Your task to perform on an android device: Add dell xps to the cart on ebay.com Image 0: 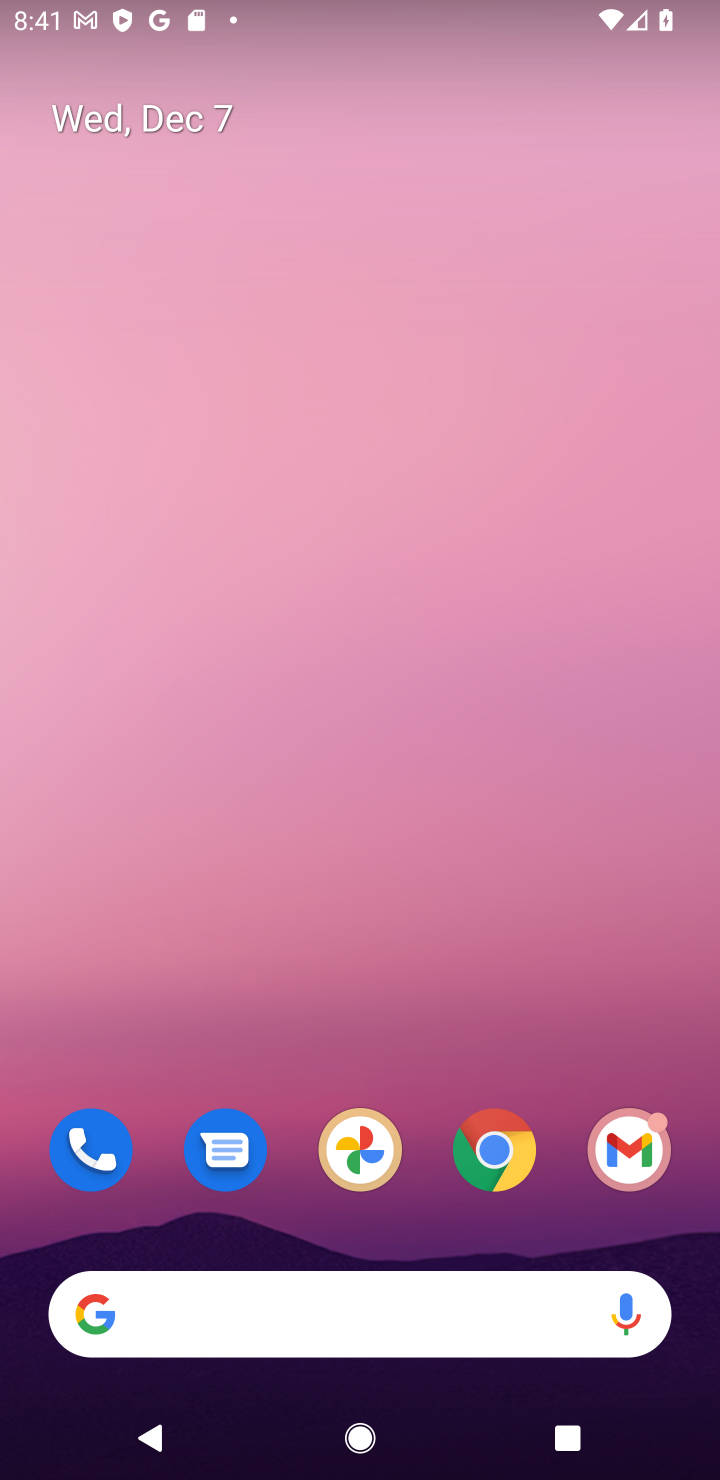
Step 0: click (502, 1149)
Your task to perform on an android device: Add dell xps to the cart on ebay.com Image 1: 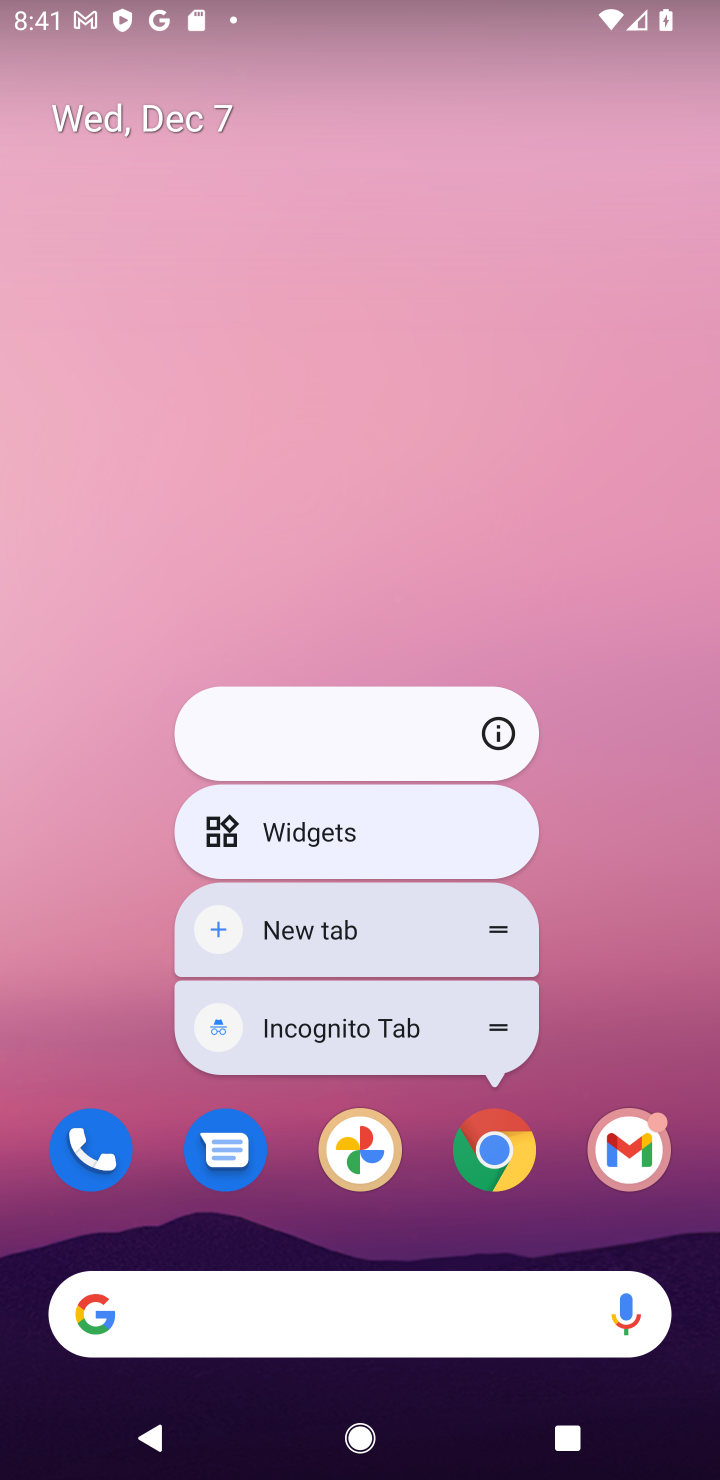
Step 1: click (519, 1165)
Your task to perform on an android device: Add dell xps to the cart on ebay.com Image 2: 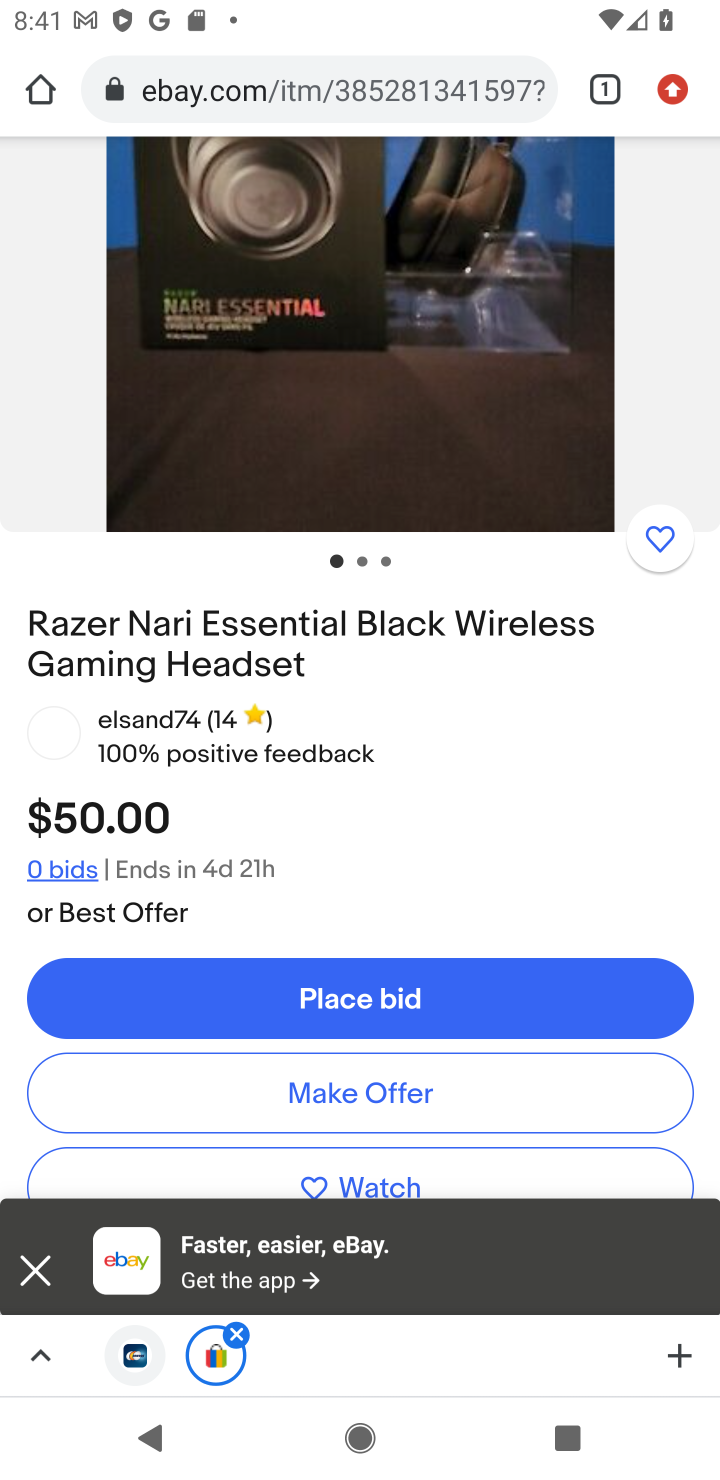
Step 2: click (206, 94)
Your task to perform on an android device: Add dell xps to the cart on ebay.com Image 3: 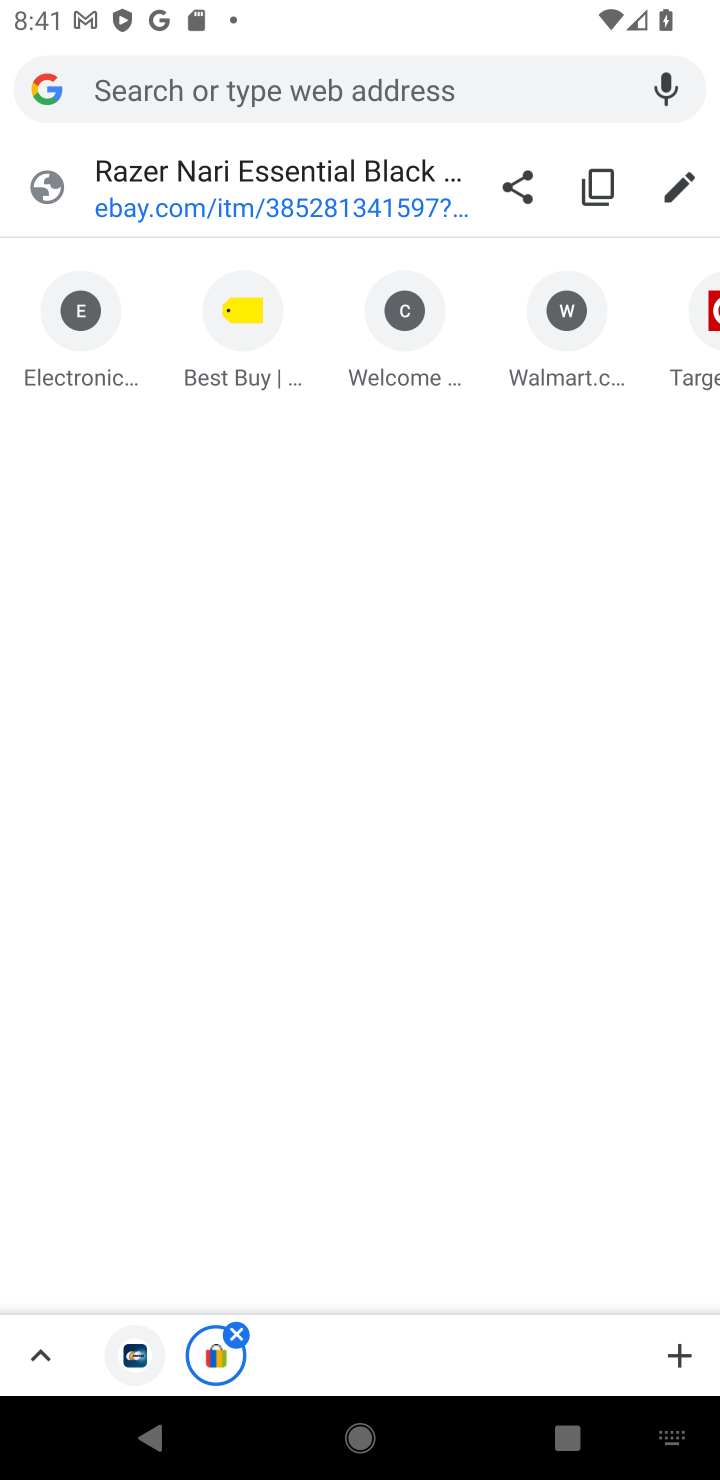
Step 3: type "ebay.com"
Your task to perform on an android device: Add dell xps to the cart on ebay.com Image 4: 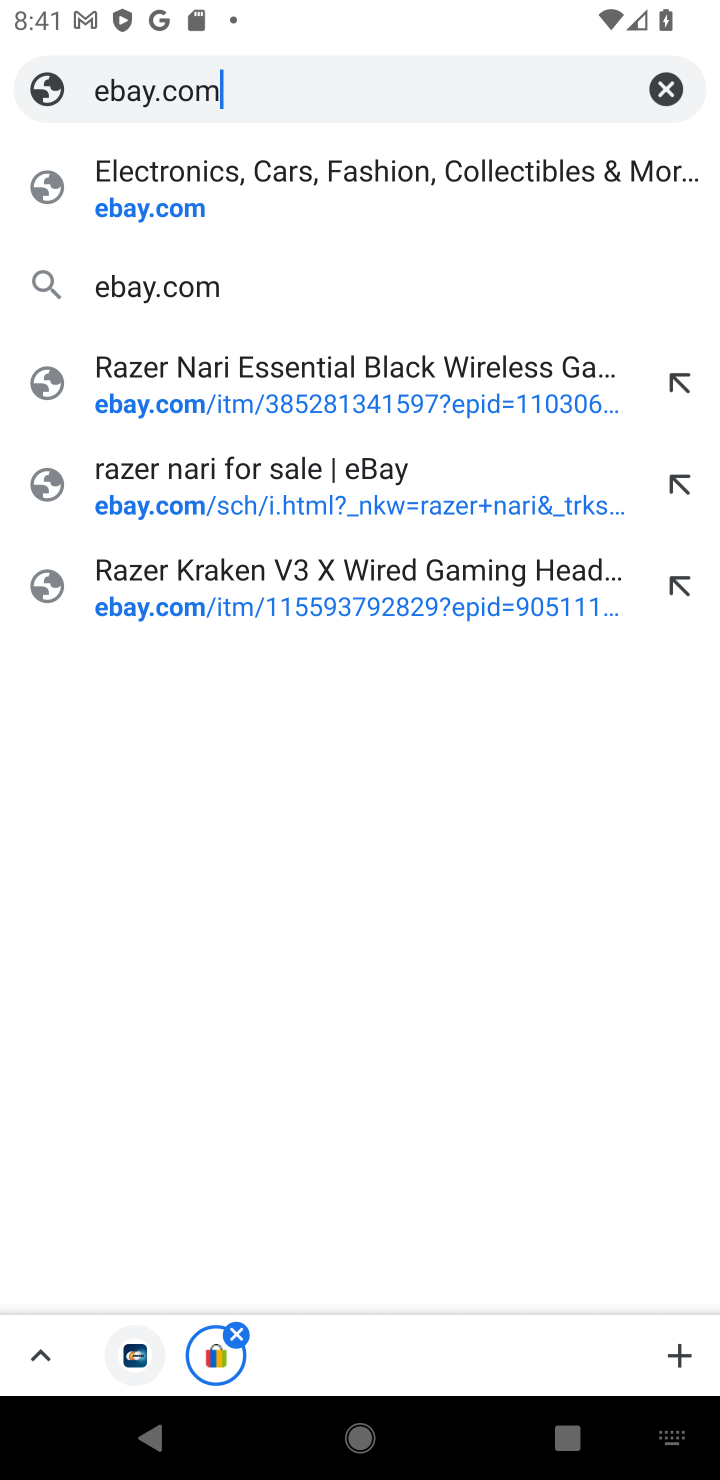
Step 4: press enter
Your task to perform on an android device: Add dell xps to the cart on ebay.com Image 5: 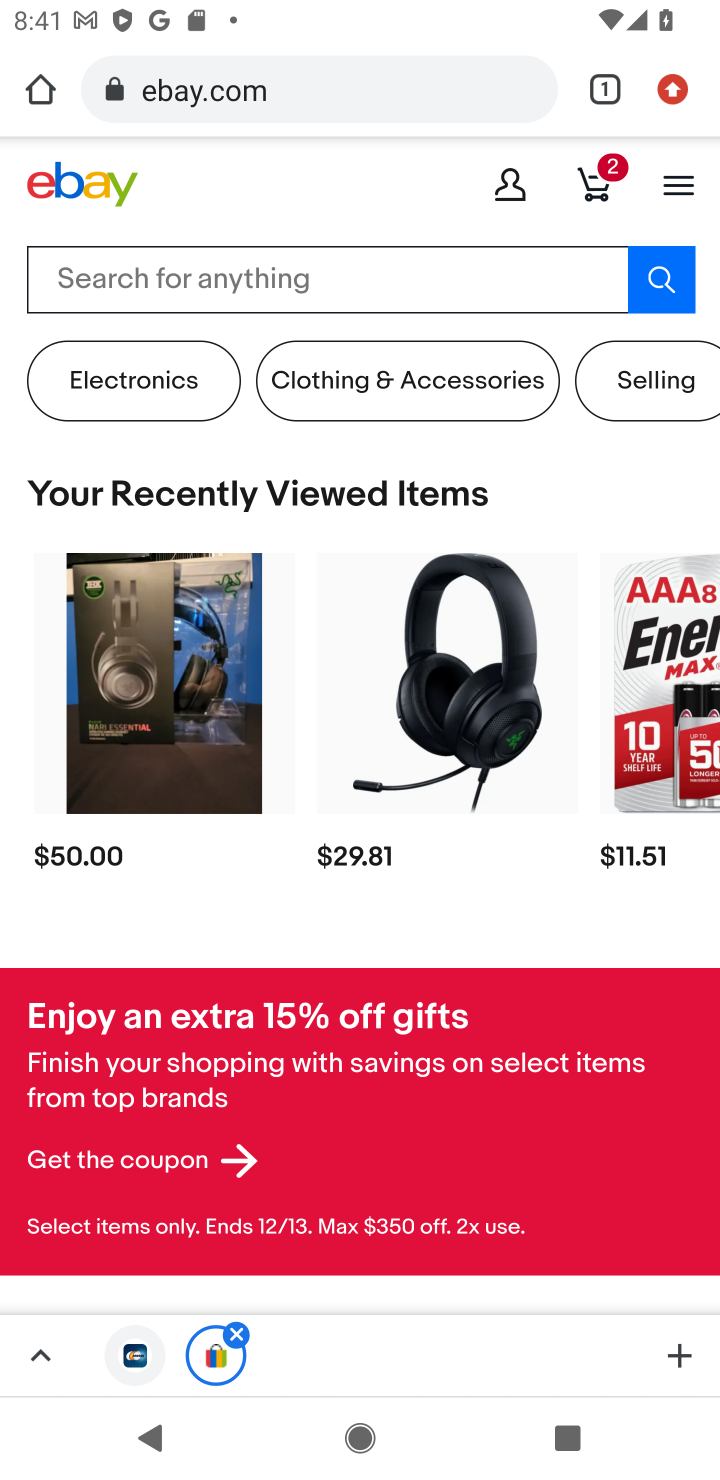
Step 5: click (434, 291)
Your task to perform on an android device: Add dell xps to the cart on ebay.com Image 6: 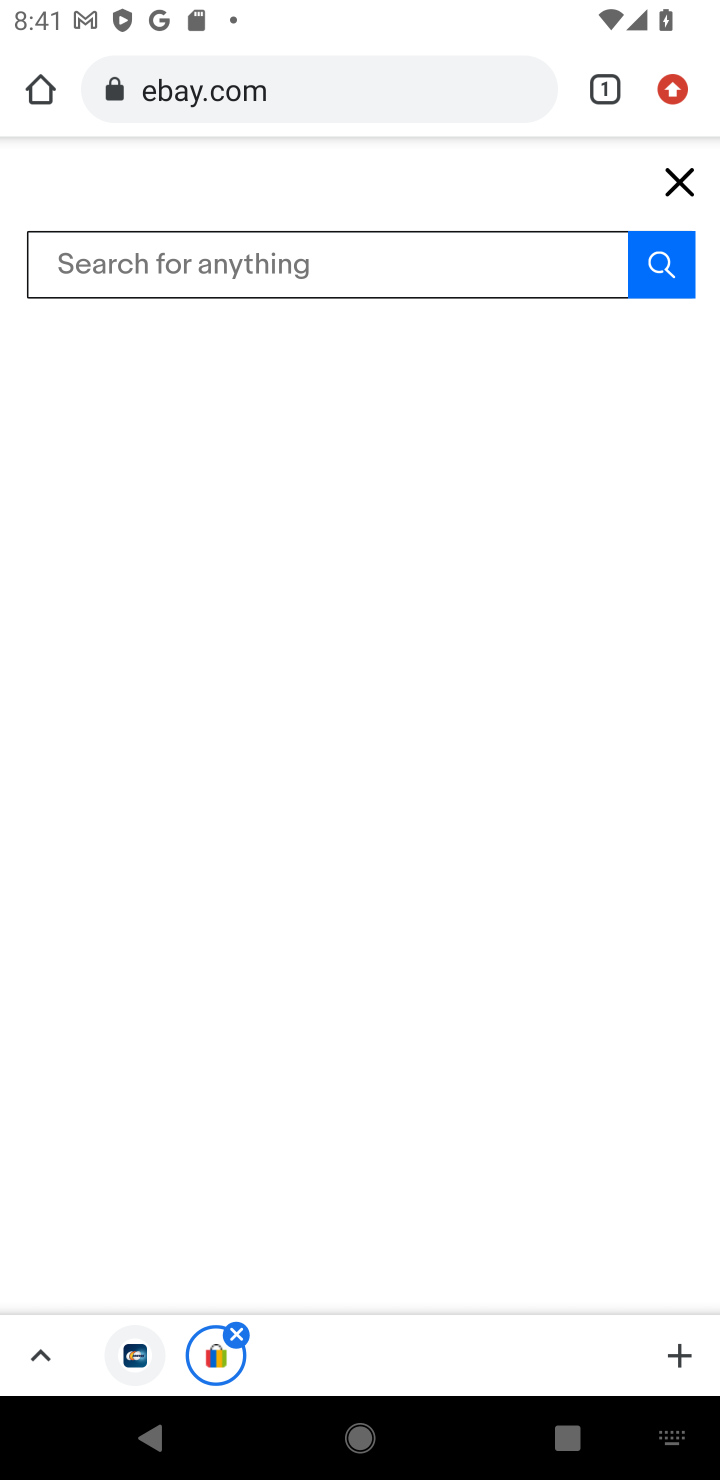
Step 6: type "dell xps"
Your task to perform on an android device: Add dell xps to the cart on ebay.com Image 7: 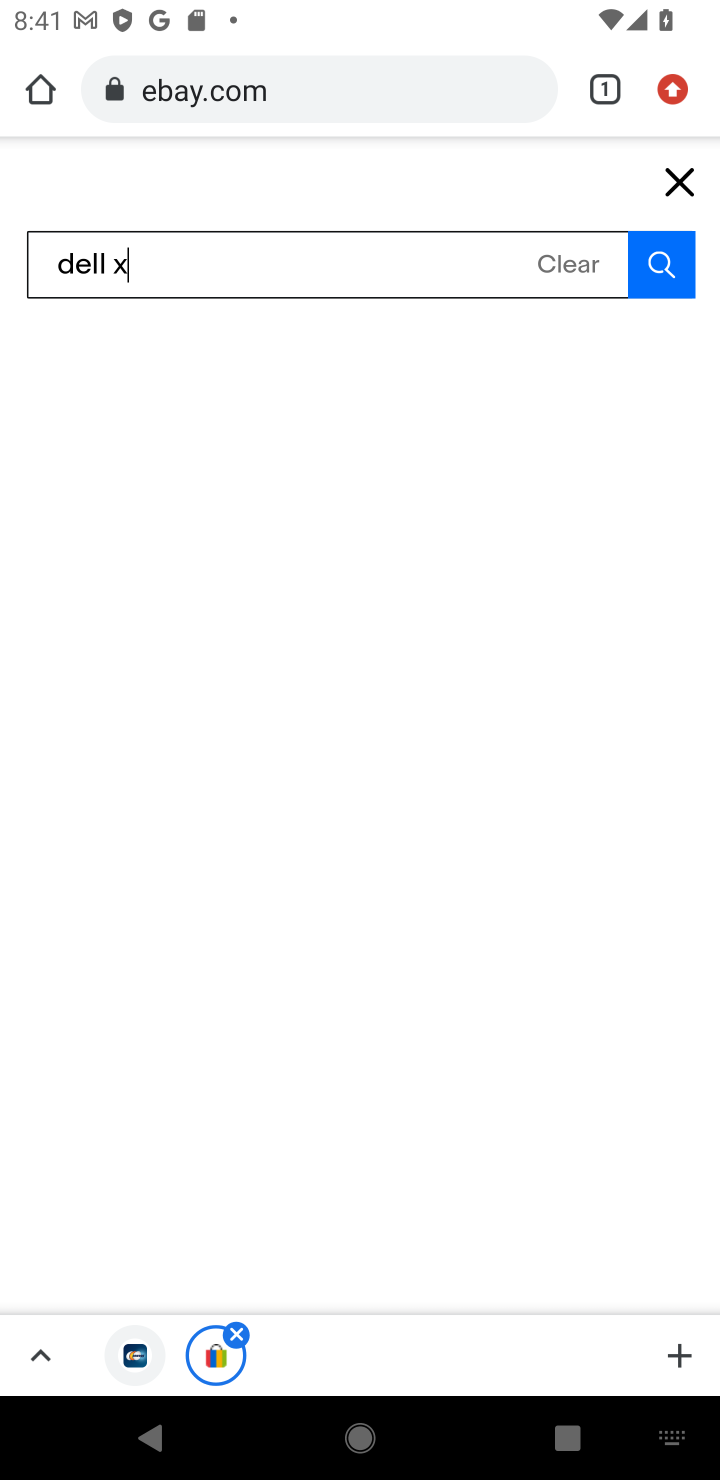
Step 7: press enter
Your task to perform on an android device: Add dell xps to the cart on ebay.com Image 8: 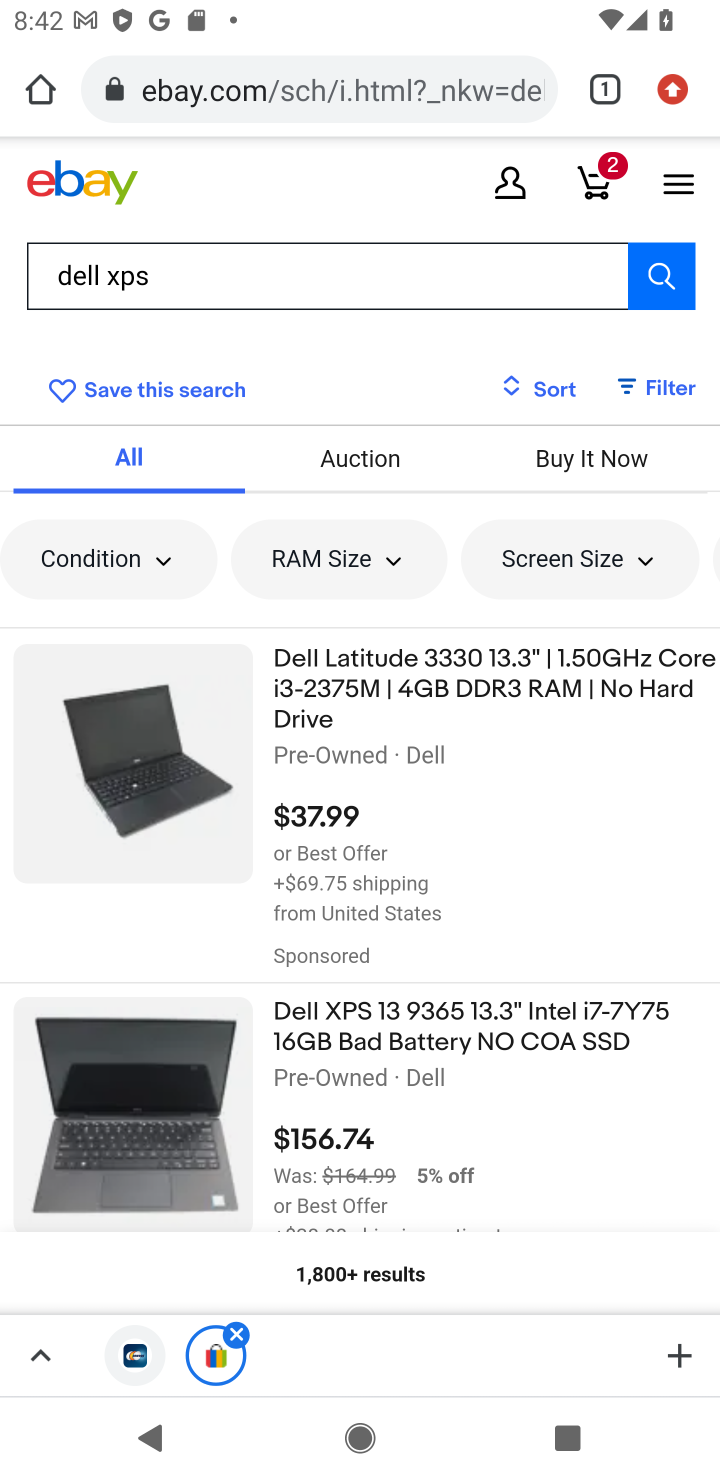
Step 8: click (475, 1029)
Your task to perform on an android device: Add dell xps to the cart on ebay.com Image 9: 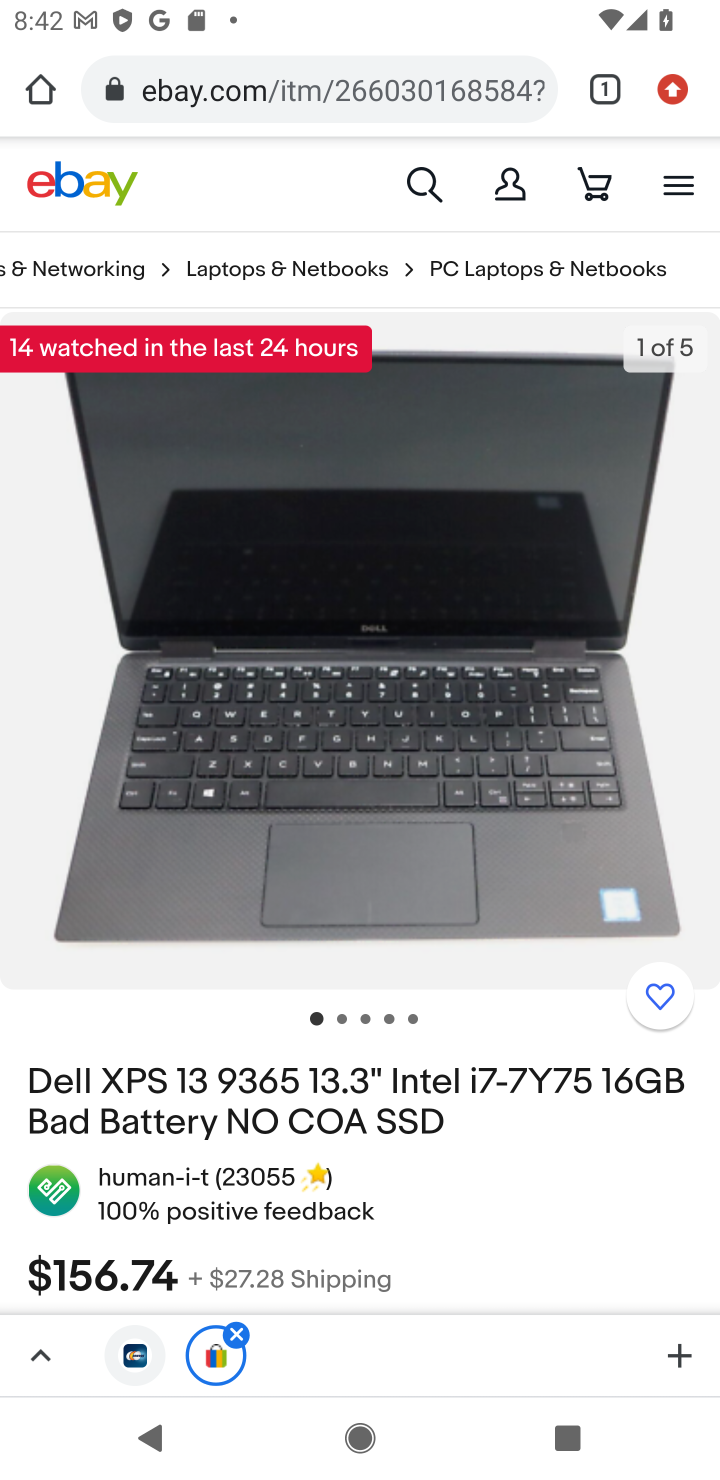
Step 9: drag from (504, 693) to (489, 318)
Your task to perform on an android device: Add dell xps to the cart on ebay.com Image 10: 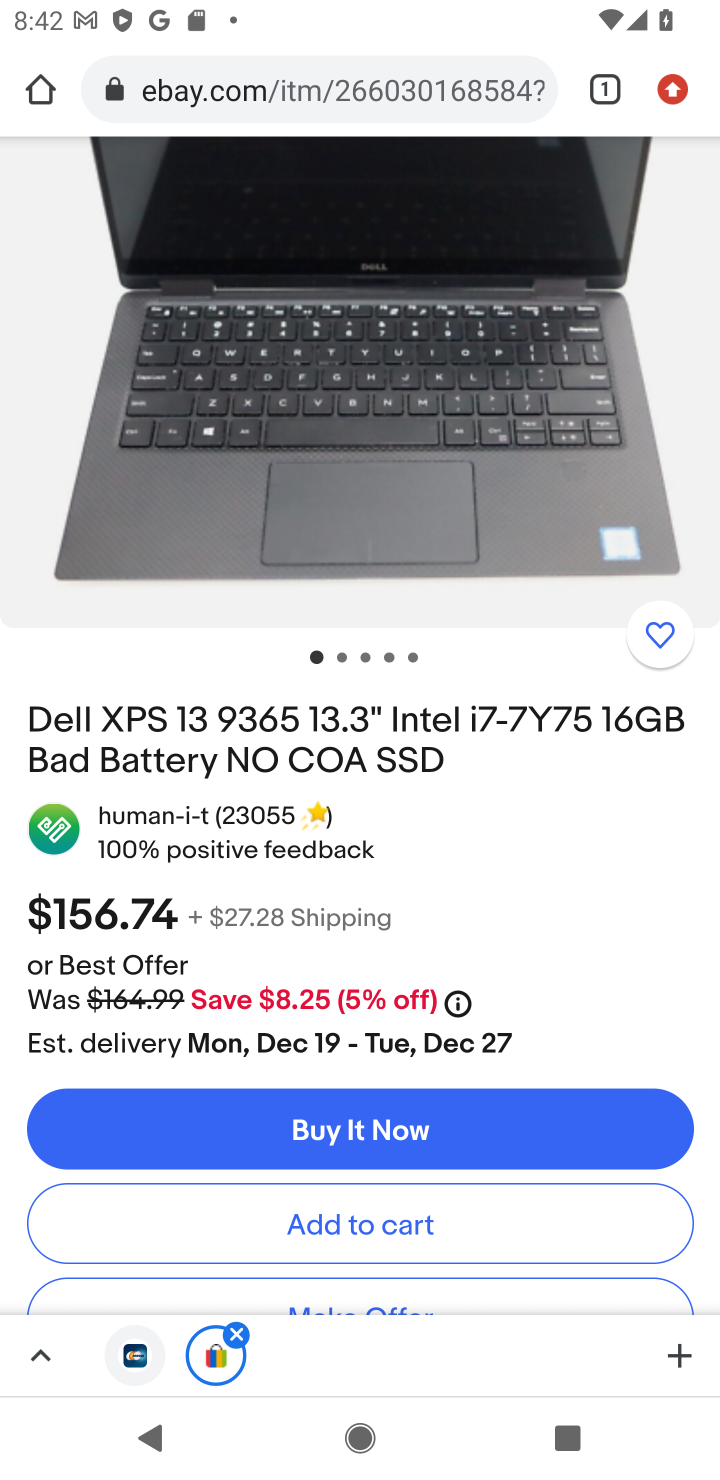
Step 10: click (481, 1212)
Your task to perform on an android device: Add dell xps to the cart on ebay.com Image 11: 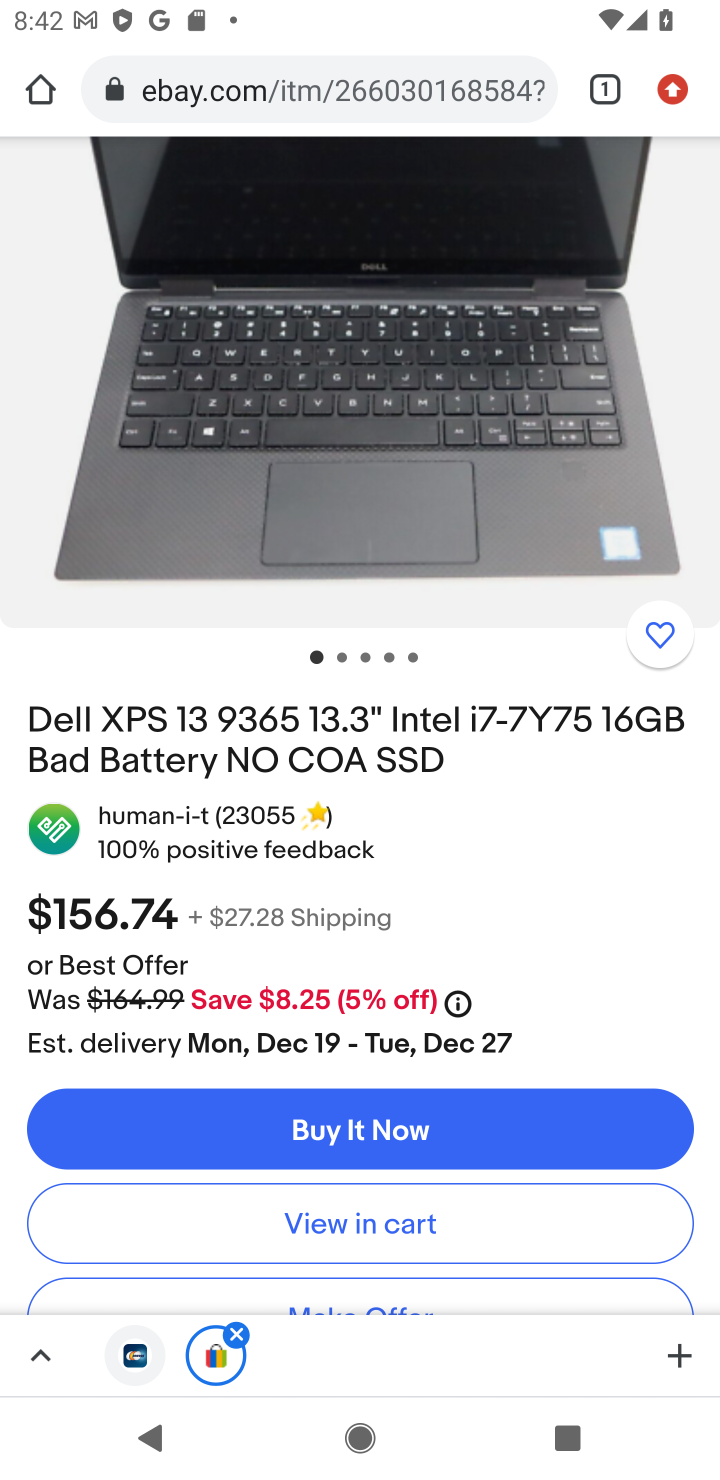
Step 11: click (453, 1225)
Your task to perform on an android device: Add dell xps to the cart on ebay.com Image 12: 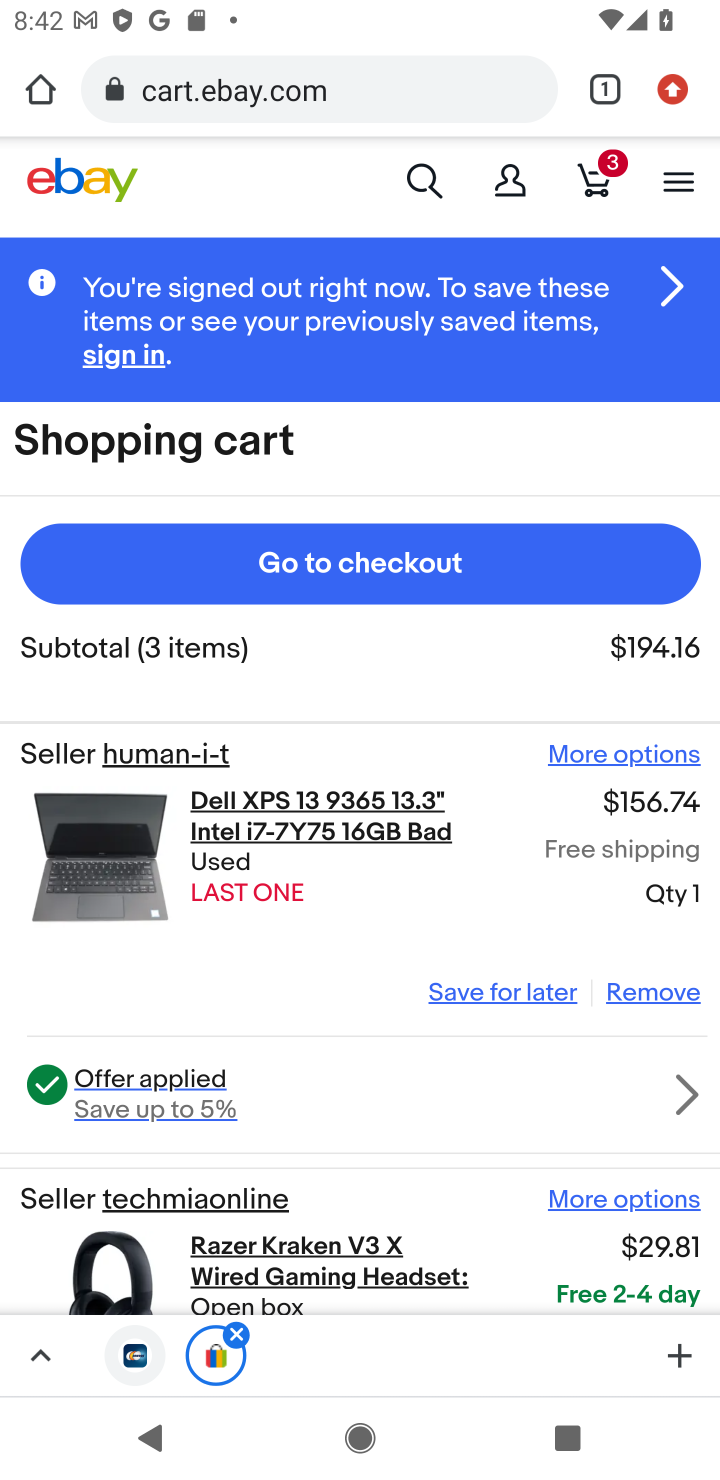
Step 12: task complete